Your task to perform on an android device: Search for Mexican restaurants on Maps Image 0: 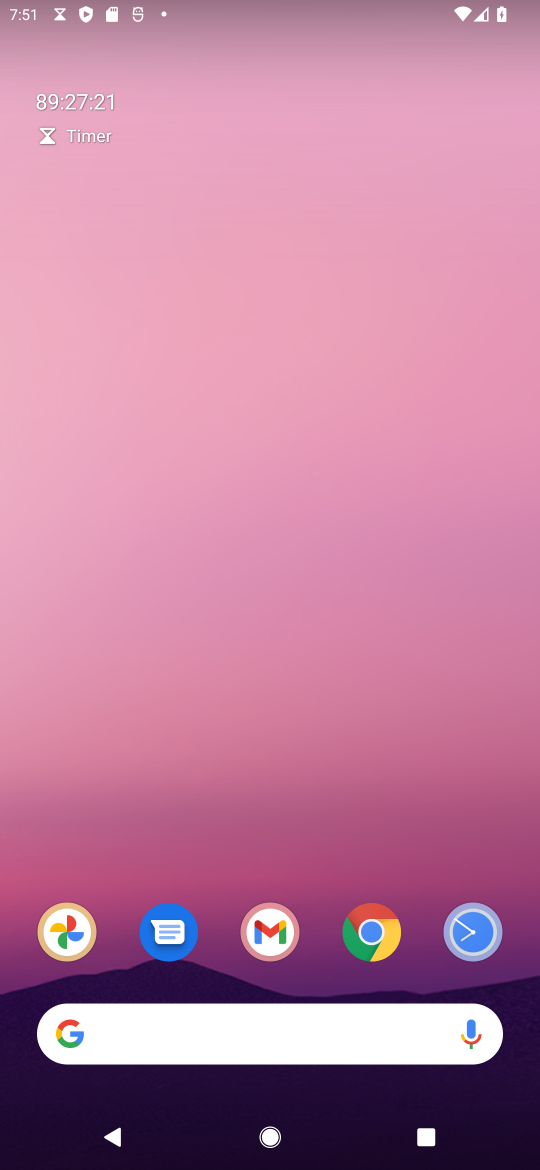
Step 0: drag from (270, 863) to (200, 201)
Your task to perform on an android device: Search for Mexican restaurants on Maps Image 1: 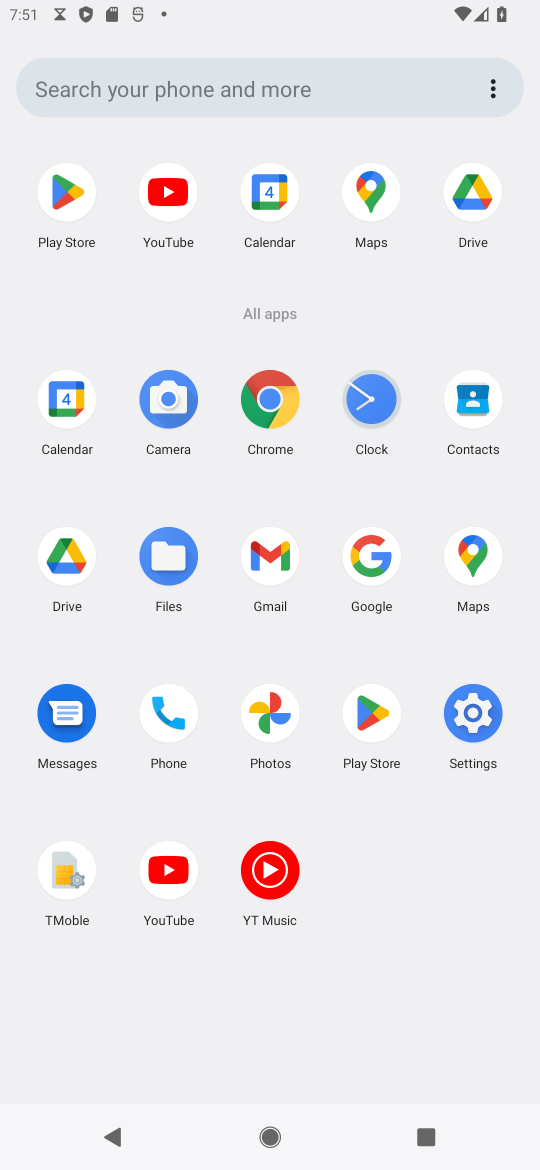
Step 1: click (482, 550)
Your task to perform on an android device: Search for Mexican restaurants on Maps Image 2: 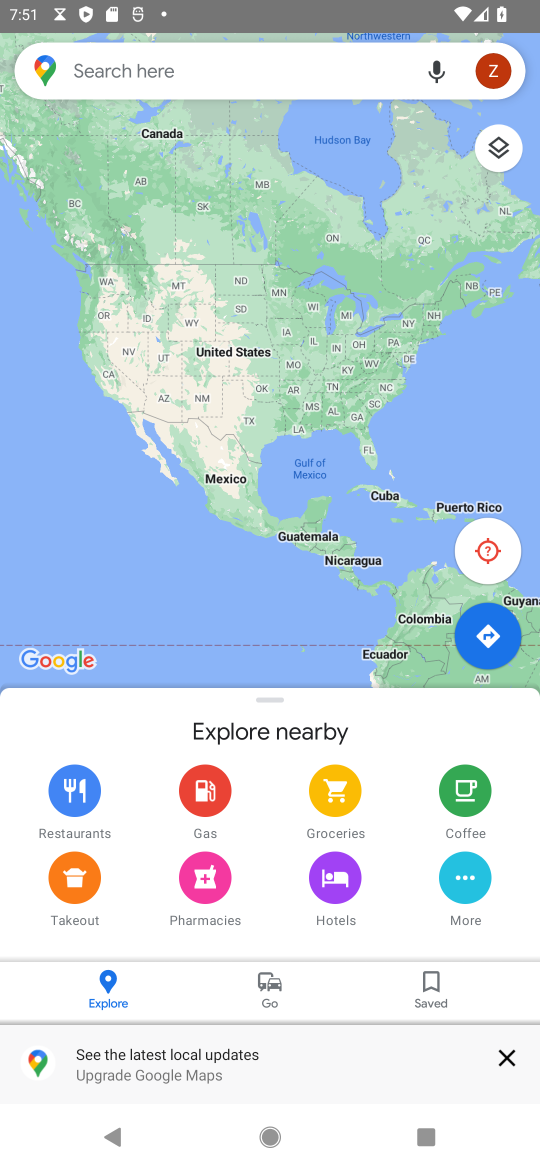
Step 2: click (284, 70)
Your task to perform on an android device: Search for Mexican restaurants on Maps Image 3: 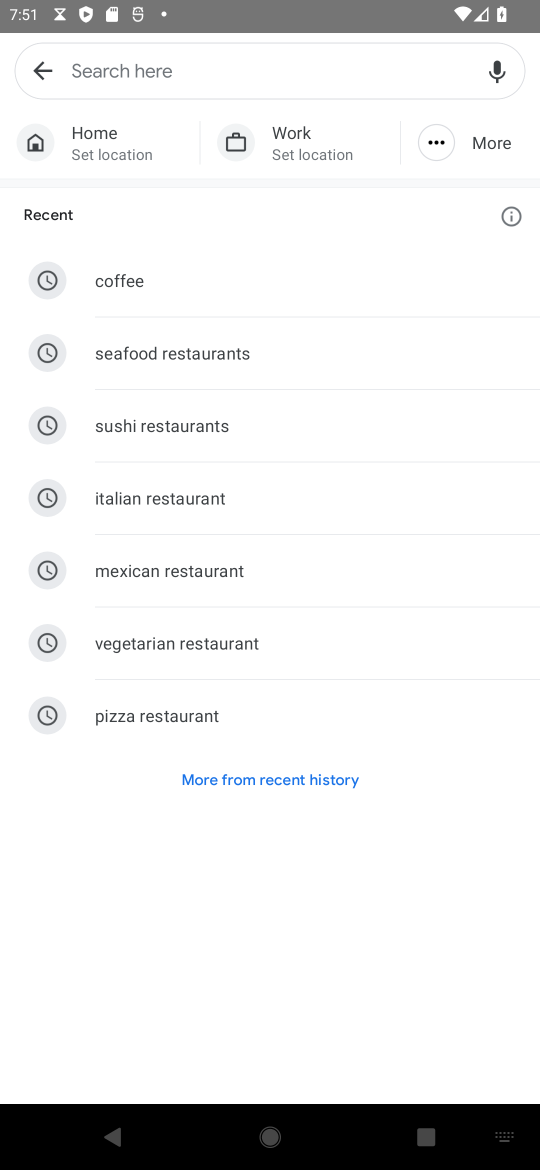
Step 3: type "mexican restaurants"
Your task to perform on an android device: Search for Mexican restaurants on Maps Image 4: 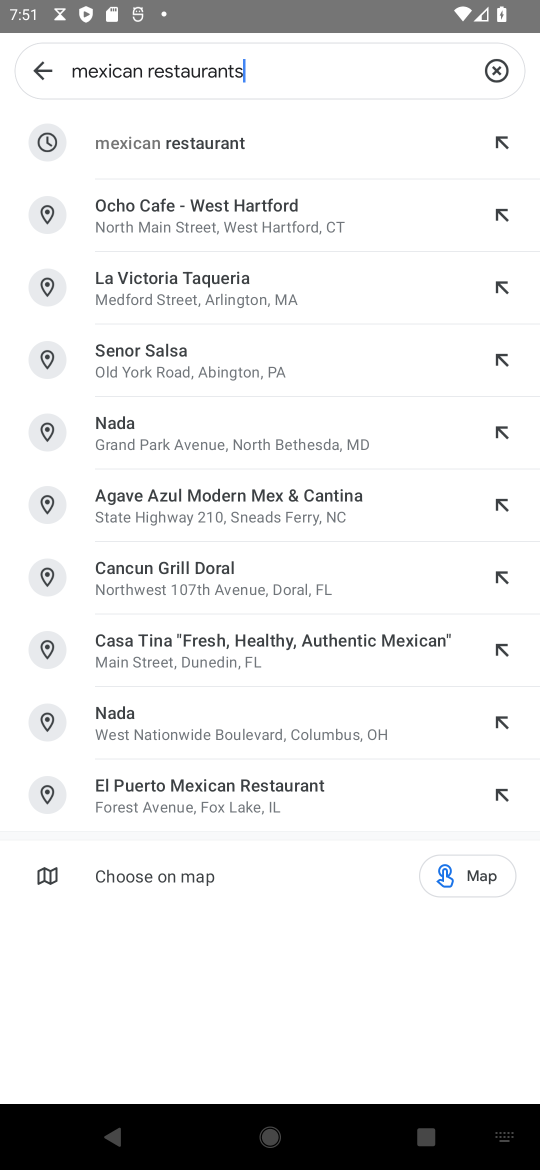
Step 4: click (310, 118)
Your task to perform on an android device: Search for Mexican restaurants on Maps Image 5: 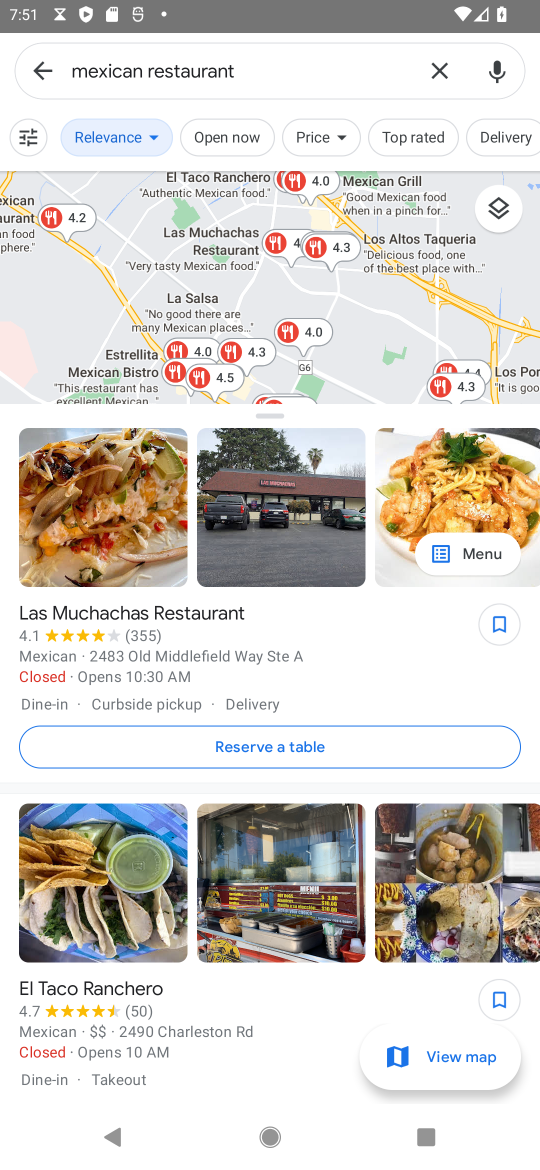
Step 5: task complete